Your task to perform on an android device: turn on data saver in the chrome app Image 0: 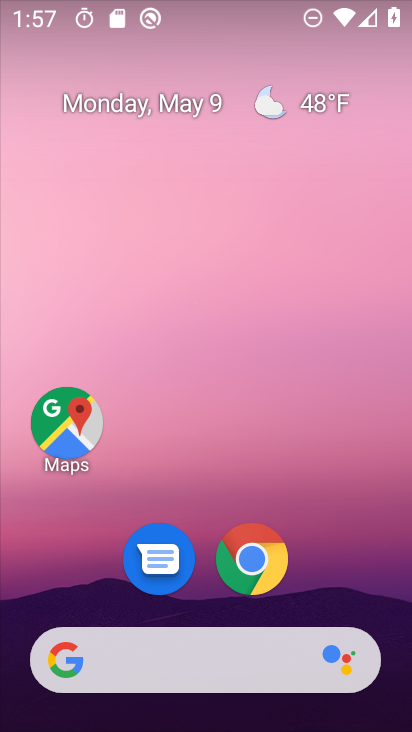
Step 0: drag from (230, 615) to (275, 45)
Your task to perform on an android device: turn on data saver in the chrome app Image 1: 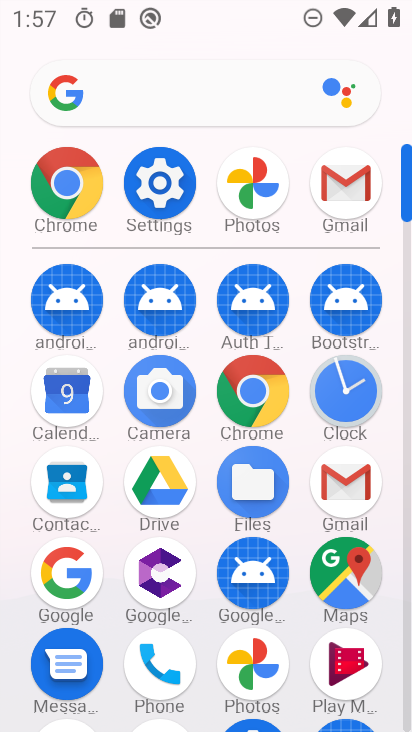
Step 1: click (255, 388)
Your task to perform on an android device: turn on data saver in the chrome app Image 2: 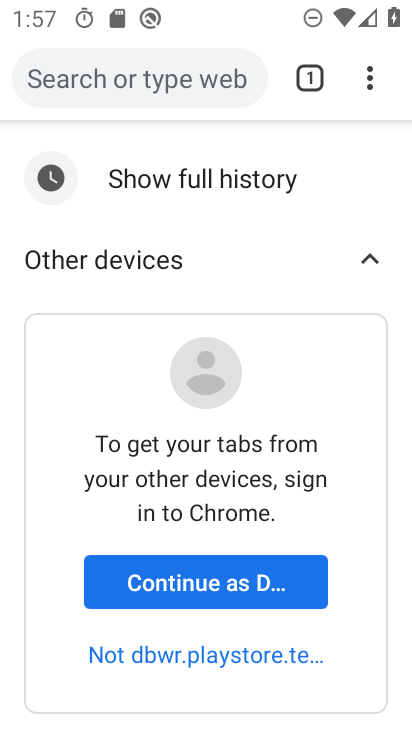
Step 2: drag from (366, 68) to (141, 641)
Your task to perform on an android device: turn on data saver in the chrome app Image 3: 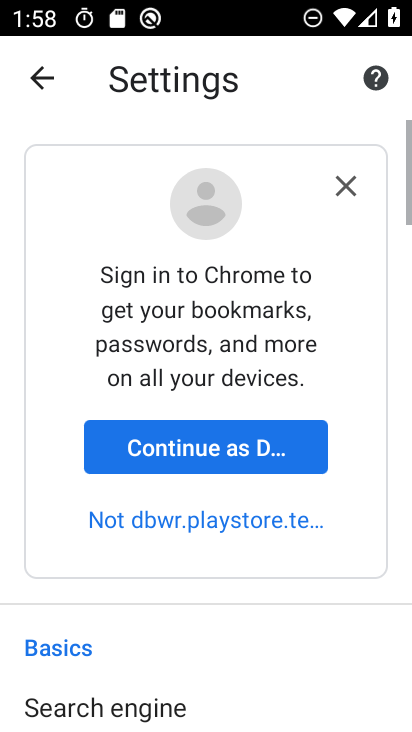
Step 3: drag from (218, 559) to (327, 0)
Your task to perform on an android device: turn on data saver in the chrome app Image 4: 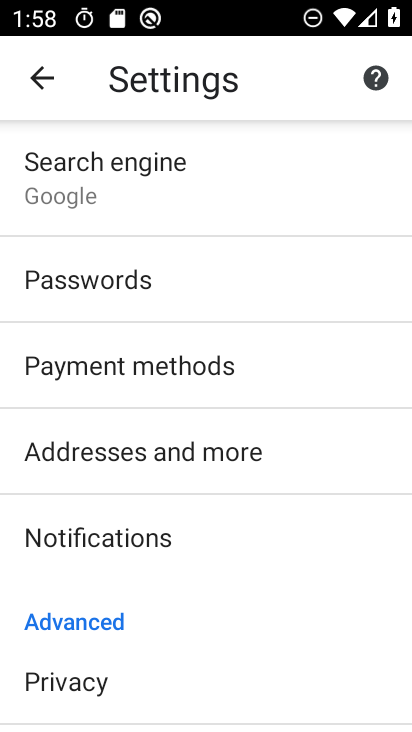
Step 4: drag from (164, 652) to (221, 169)
Your task to perform on an android device: turn on data saver in the chrome app Image 5: 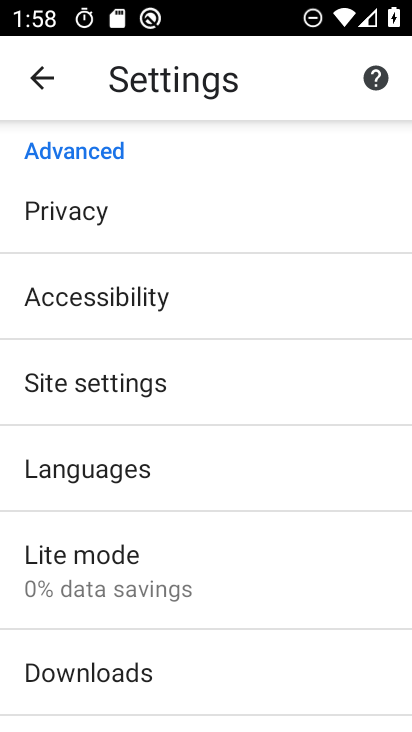
Step 5: click (142, 555)
Your task to perform on an android device: turn on data saver in the chrome app Image 6: 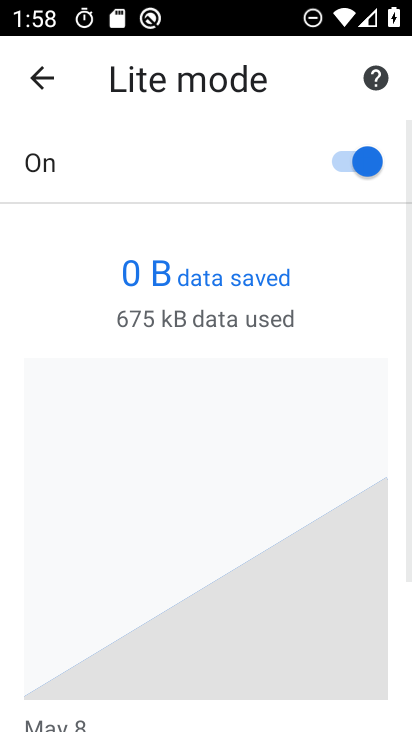
Step 6: task complete